Your task to perform on an android device: Go to network settings Image 0: 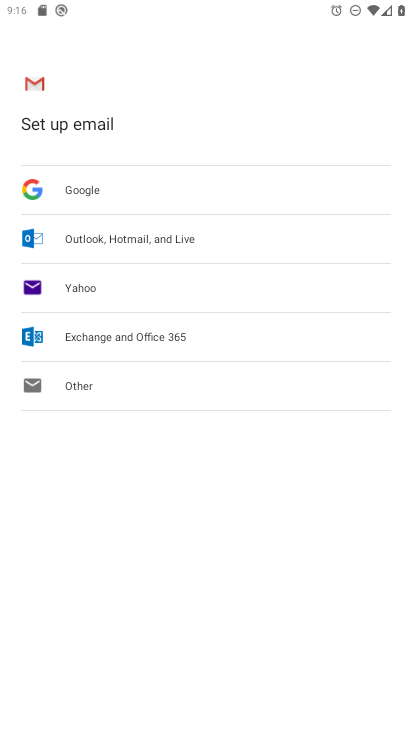
Step 0: press home button
Your task to perform on an android device: Go to network settings Image 1: 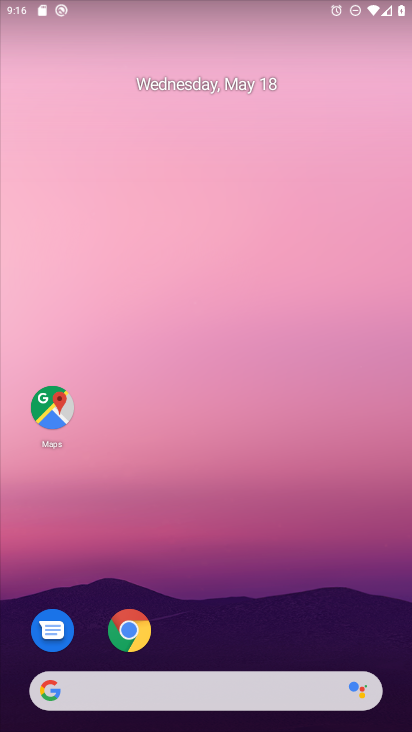
Step 1: drag from (182, 683) to (154, 35)
Your task to perform on an android device: Go to network settings Image 2: 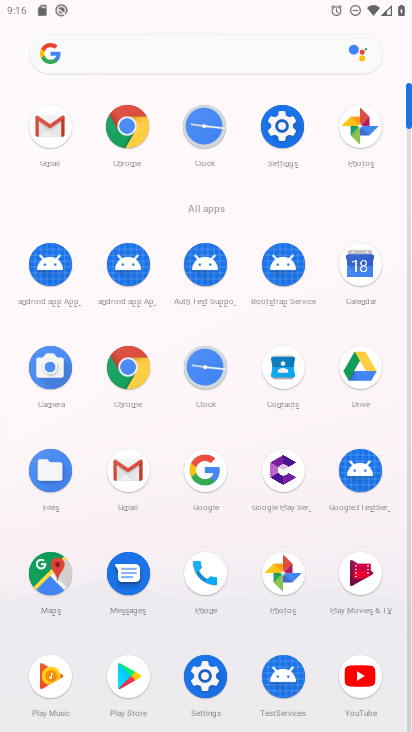
Step 2: click (284, 124)
Your task to perform on an android device: Go to network settings Image 3: 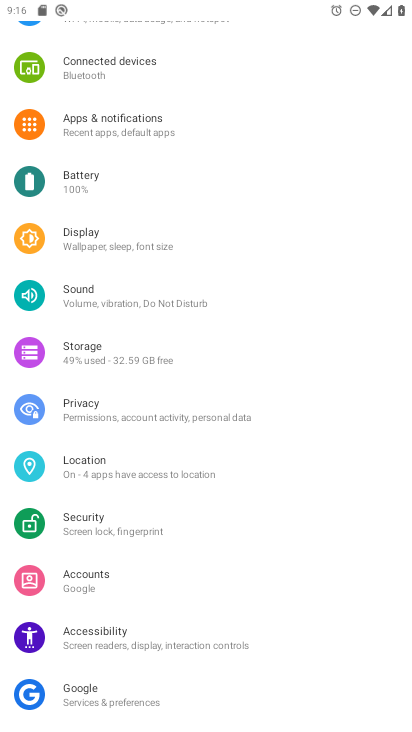
Step 3: drag from (143, 89) to (122, 411)
Your task to perform on an android device: Go to network settings Image 4: 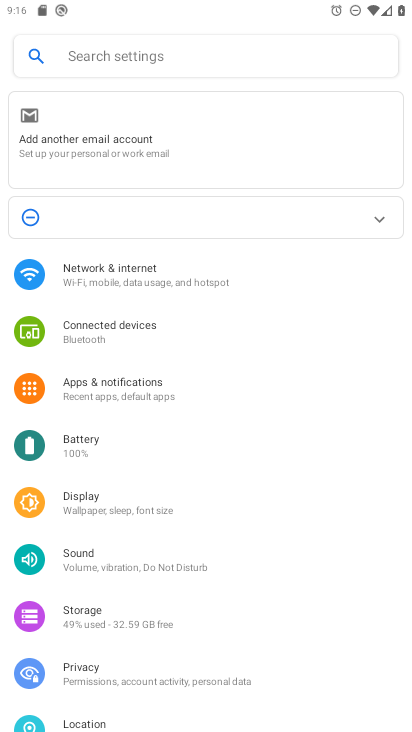
Step 4: click (130, 289)
Your task to perform on an android device: Go to network settings Image 5: 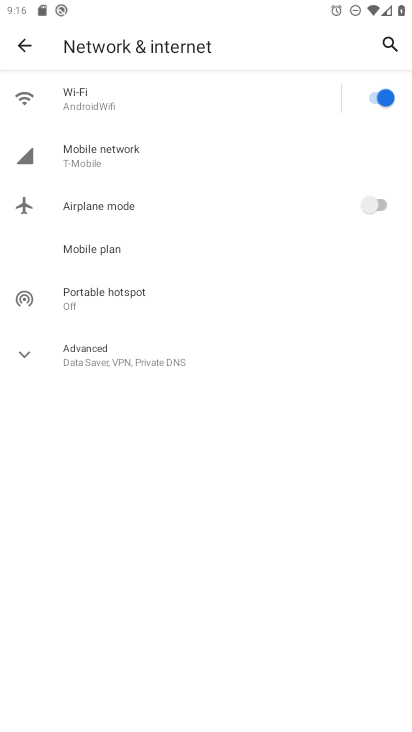
Step 5: click (112, 172)
Your task to perform on an android device: Go to network settings Image 6: 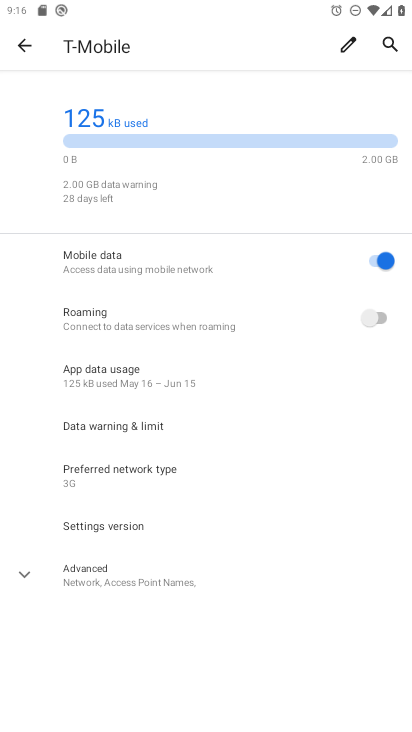
Step 6: task complete